Your task to perform on an android device: Go to internet settings Image 0: 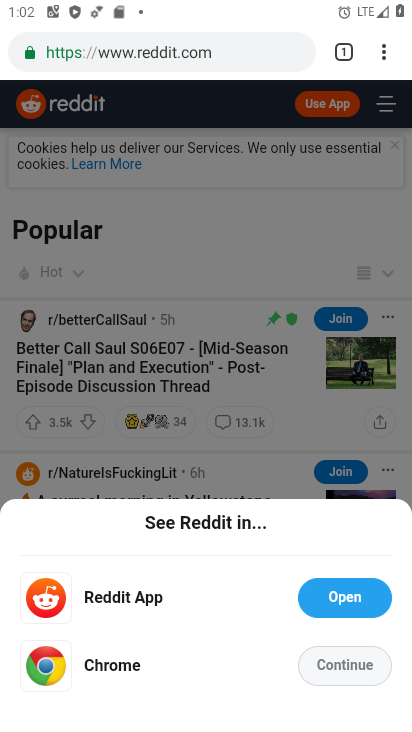
Step 0: press back button
Your task to perform on an android device: Go to internet settings Image 1: 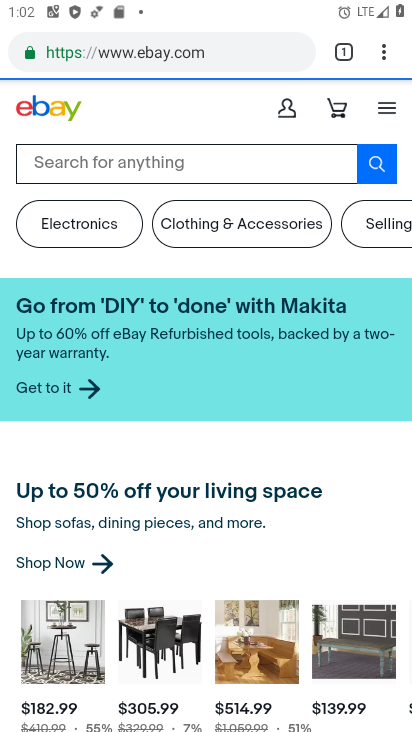
Step 1: press home button
Your task to perform on an android device: Go to internet settings Image 2: 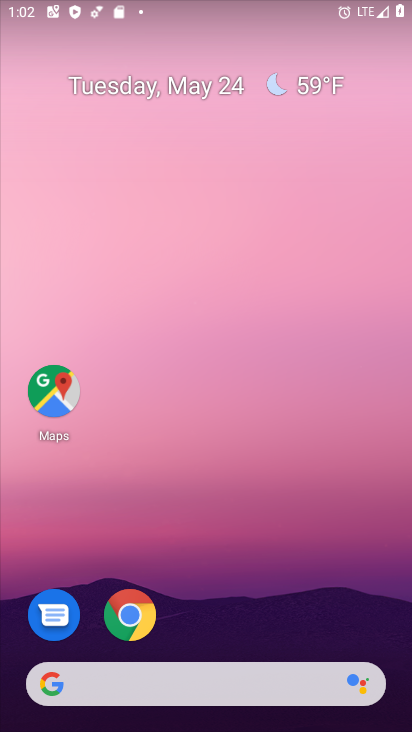
Step 2: drag from (272, 614) to (278, 6)
Your task to perform on an android device: Go to internet settings Image 3: 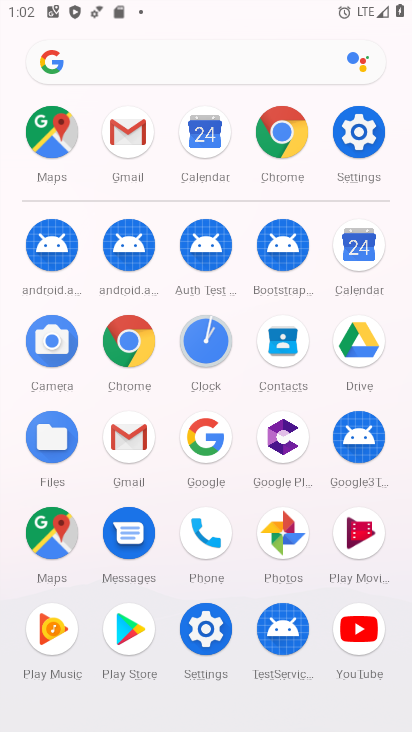
Step 3: drag from (1, 585) to (19, 271)
Your task to perform on an android device: Go to internet settings Image 4: 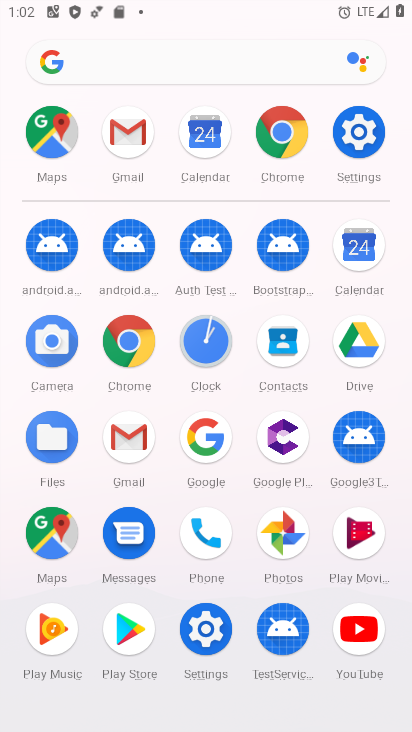
Step 4: click (201, 623)
Your task to perform on an android device: Go to internet settings Image 5: 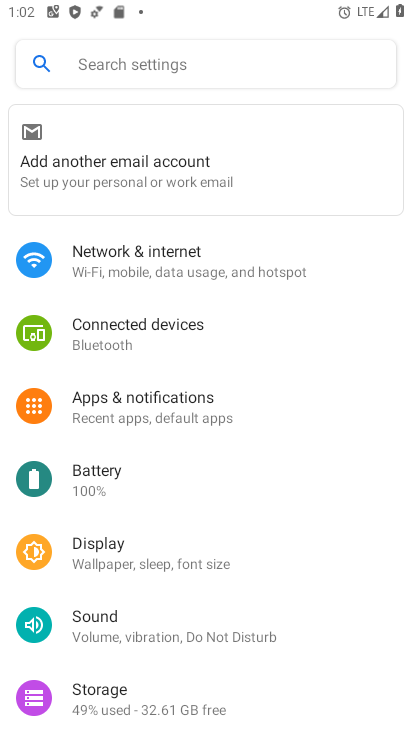
Step 5: click (196, 247)
Your task to perform on an android device: Go to internet settings Image 6: 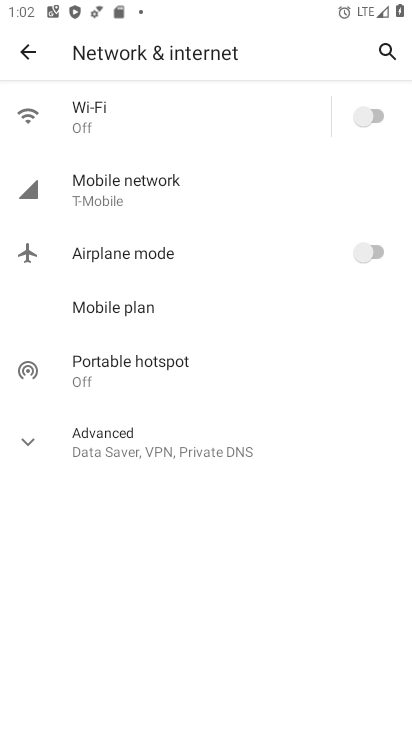
Step 6: click (46, 442)
Your task to perform on an android device: Go to internet settings Image 7: 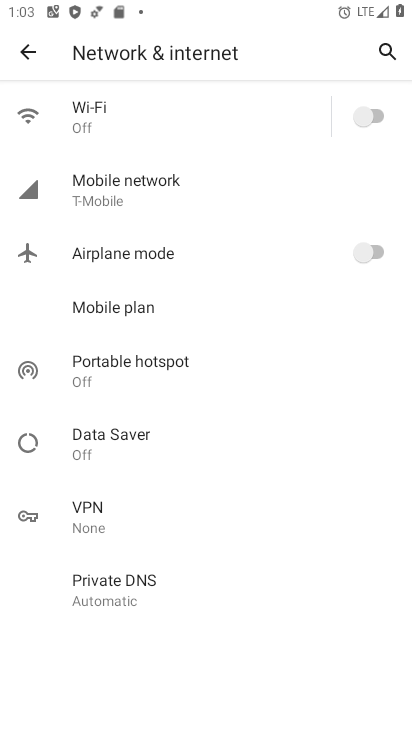
Step 7: task complete